Your task to perform on an android device: empty trash in the gmail app Image 0: 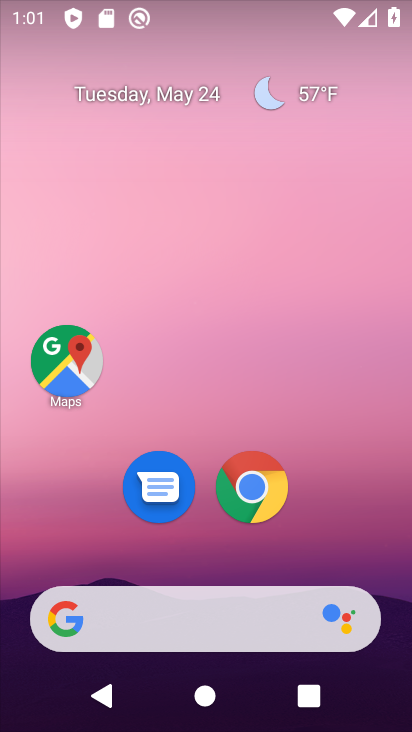
Step 0: drag from (233, 720) to (238, 104)
Your task to perform on an android device: empty trash in the gmail app Image 1: 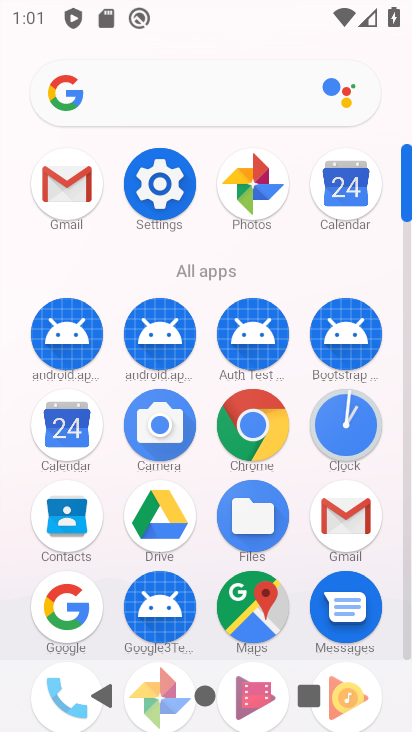
Step 1: click (71, 184)
Your task to perform on an android device: empty trash in the gmail app Image 2: 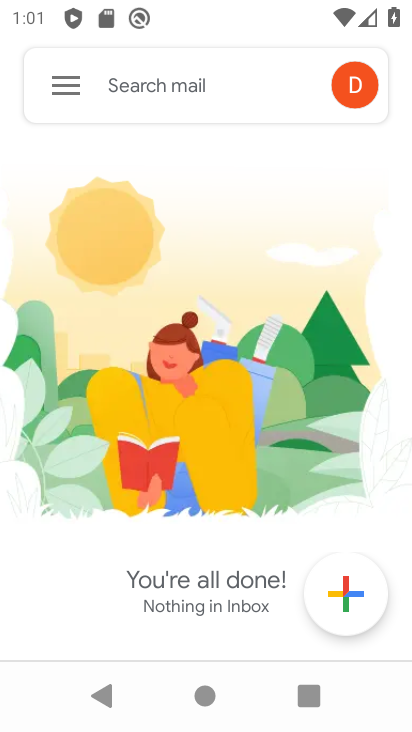
Step 2: click (55, 80)
Your task to perform on an android device: empty trash in the gmail app Image 3: 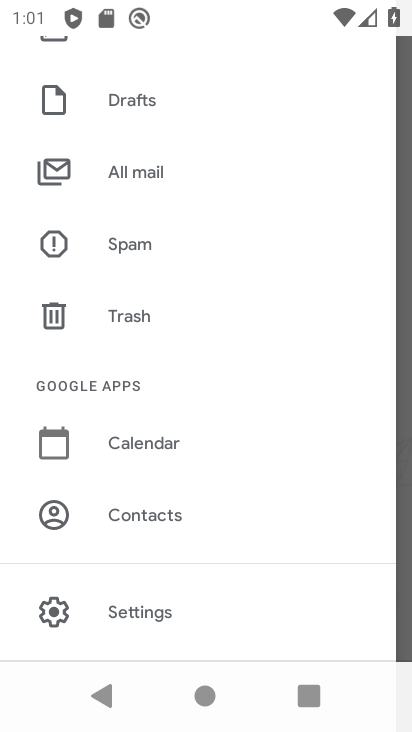
Step 3: click (127, 316)
Your task to perform on an android device: empty trash in the gmail app Image 4: 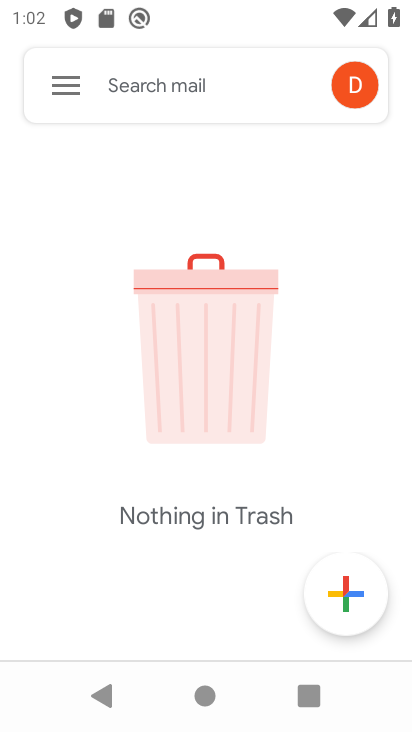
Step 4: task complete